Your task to perform on an android device: remove spam from my inbox in the gmail app Image 0: 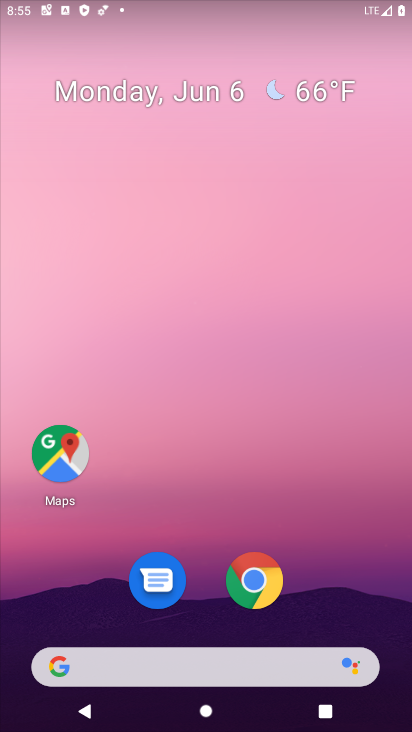
Step 0: drag from (376, 617) to (405, 37)
Your task to perform on an android device: remove spam from my inbox in the gmail app Image 1: 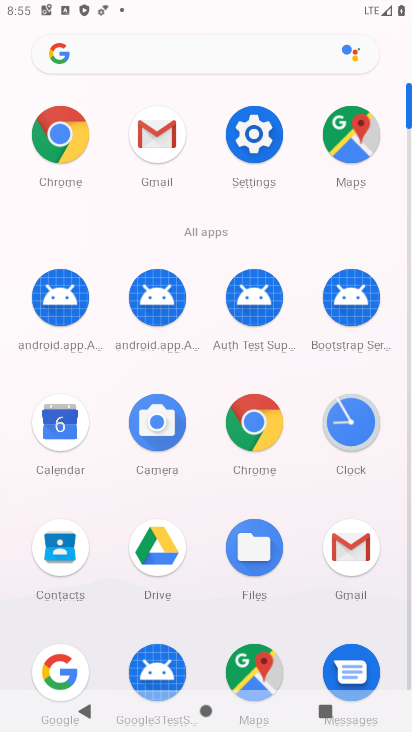
Step 1: click (173, 148)
Your task to perform on an android device: remove spam from my inbox in the gmail app Image 2: 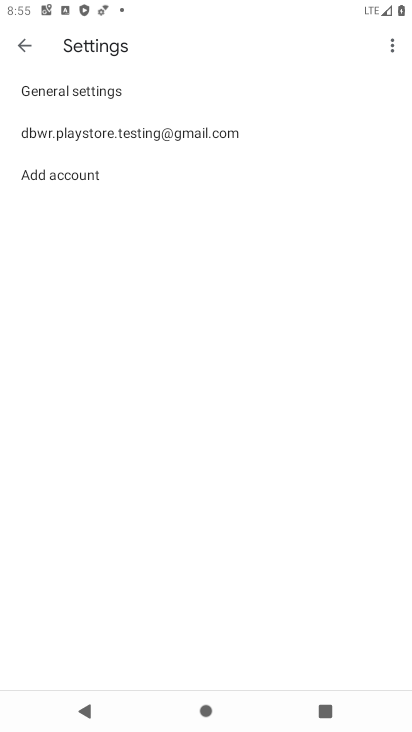
Step 2: click (38, 31)
Your task to perform on an android device: remove spam from my inbox in the gmail app Image 3: 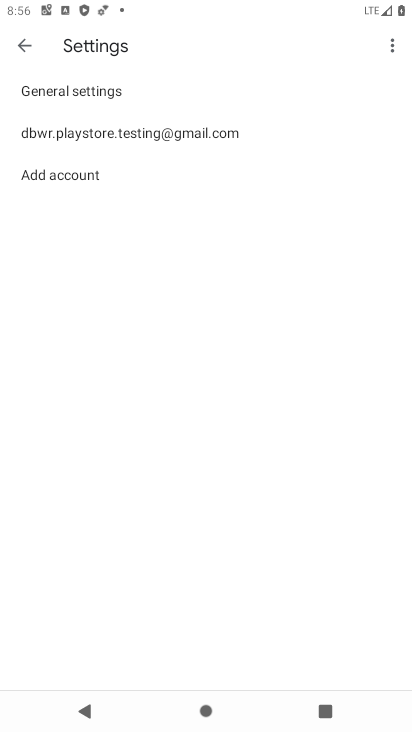
Step 3: click (20, 54)
Your task to perform on an android device: remove spam from my inbox in the gmail app Image 4: 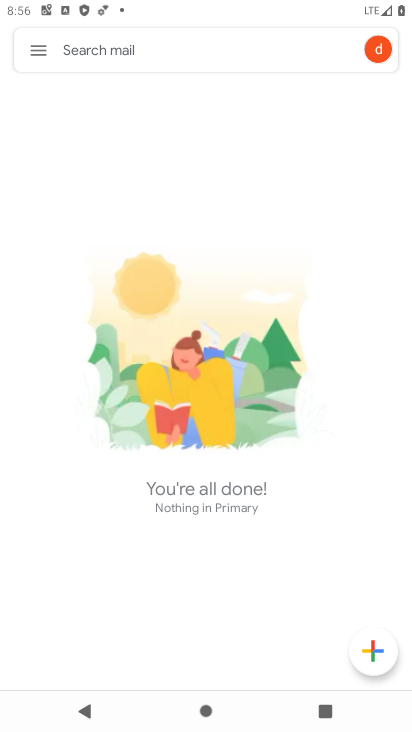
Step 4: click (20, 54)
Your task to perform on an android device: remove spam from my inbox in the gmail app Image 5: 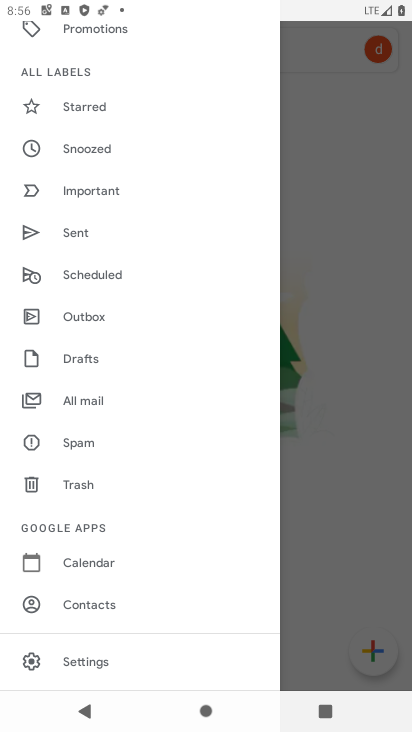
Step 5: click (48, 450)
Your task to perform on an android device: remove spam from my inbox in the gmail app Image 6: 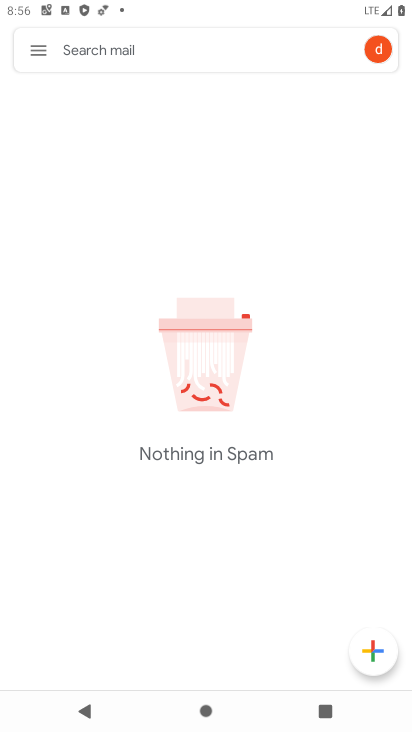
Step 6: task complete